Your task to perform on an android device: open app "PUBG MOBILE" Image 0: 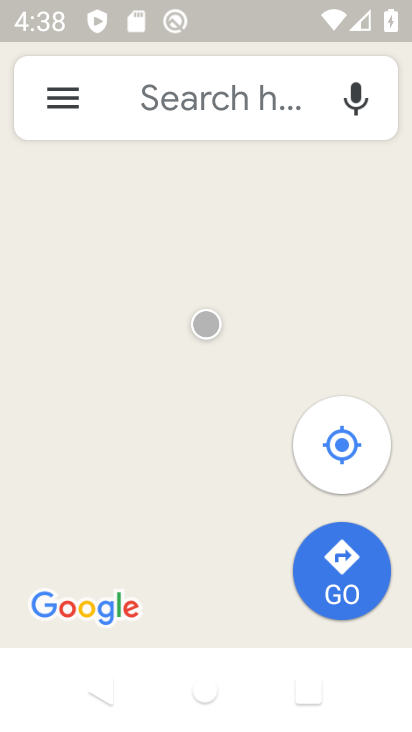
Step 0: press home button
Your task to perform on an android device: open app "PUBG MOBILE" Image 1: 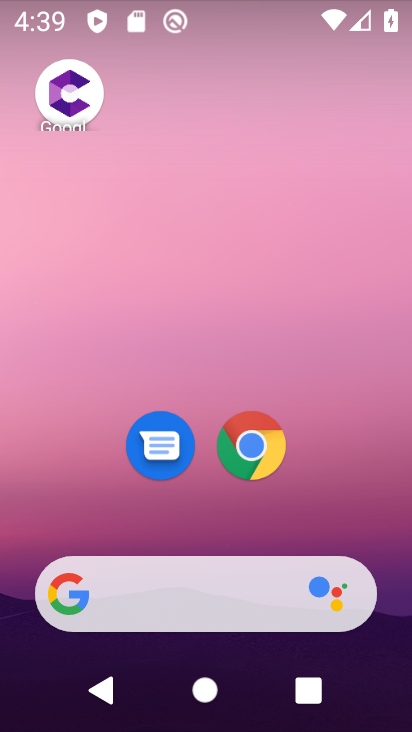
Step 1: drag from (164, 599) to (254, 66)
Your task to perform on an android device: open app "PUBG MOBILE" Image 2: 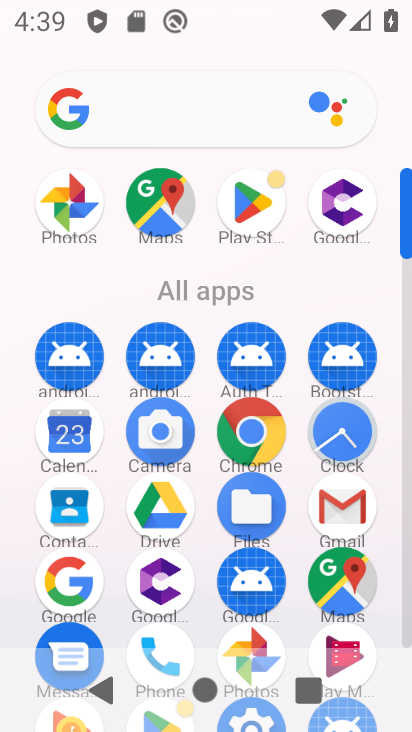
Step 2: click (251, 201)
Your task to perform on an android device: open app "PUBG MOBILE" Image 3: 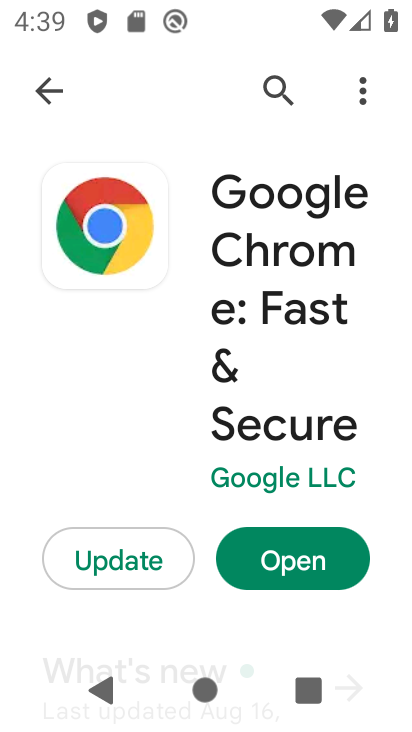
Step 3: press back button
Your task to perform on an android device: open app "PUBG MOBILE" Image 4: 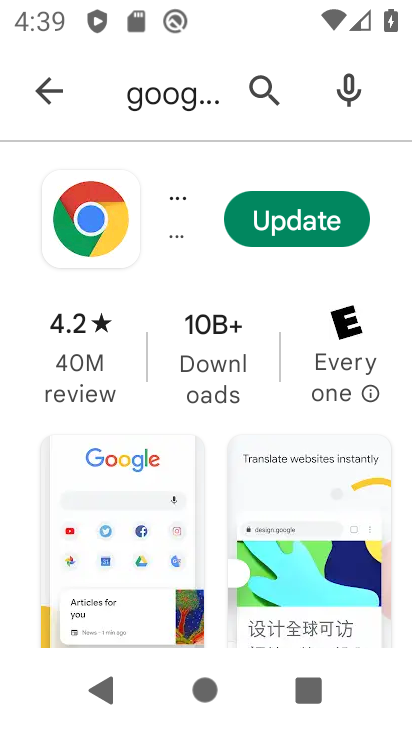
Step 4: press back button
Your task to perform on an android device: open app "PUBG MOBILE" Image 5: 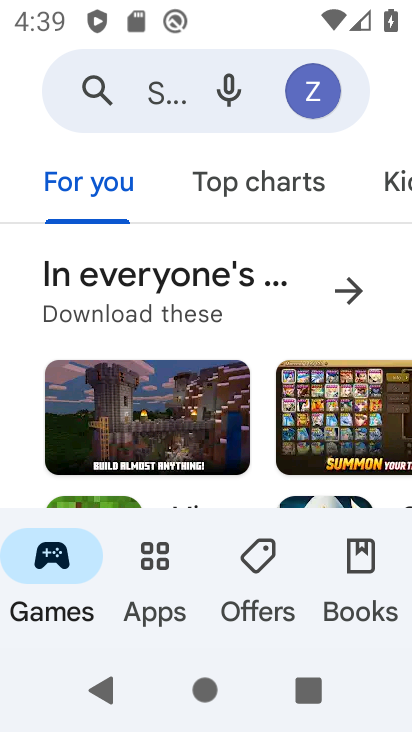
Step 5: click (152, 95)
Your task to perform on an android device: open app "PUBG MOBILE" Image 6: 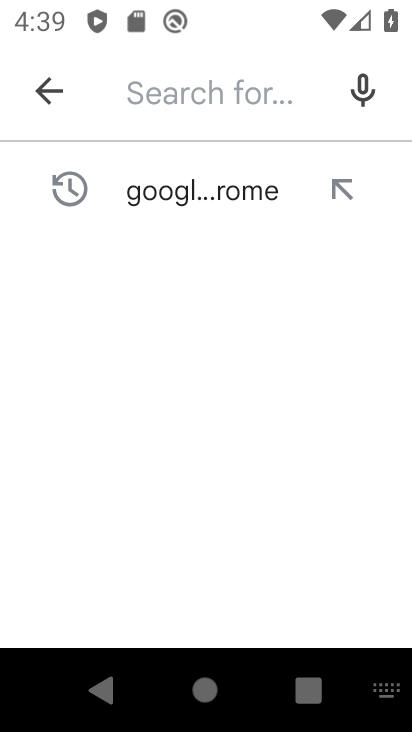
Step 6: type "PUBG M obile"
Your task to perform on an android device: open app "PUBG MOBILE" Image 7: 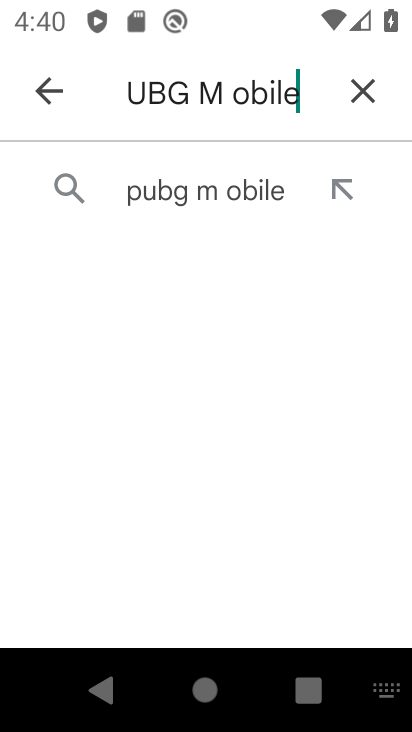
Step 7: click (219, 200)
Your task to perform on an android device: open app "PUBG MOBILE" Image 8: 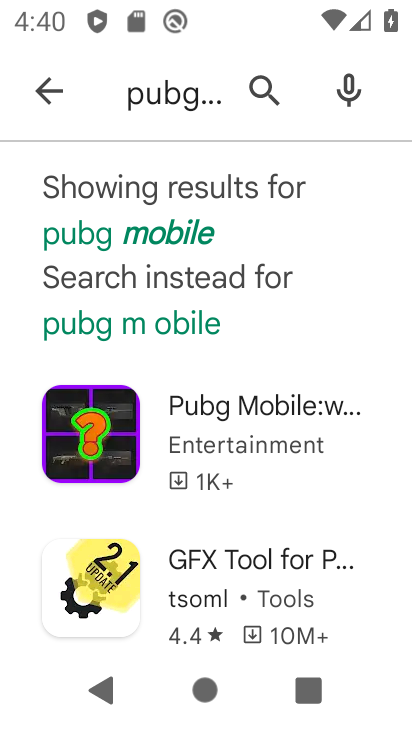
Step 8: task complete